Your task to perform on an android device: add a contact in the contacts app Image 0: 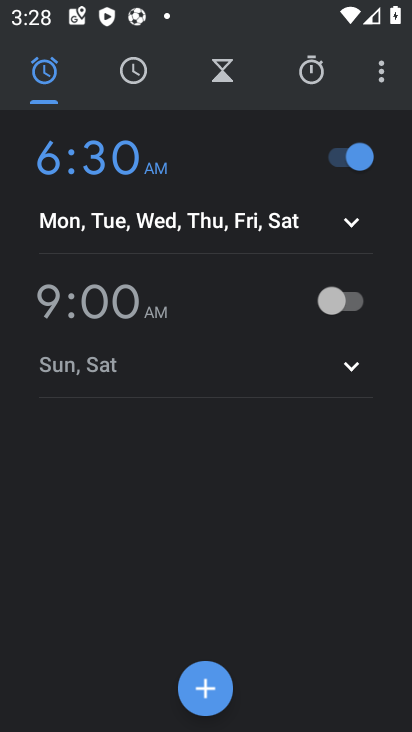
Step 0: press home button
Your task to perform on an android device: add a contact in the contacts app Image 1: 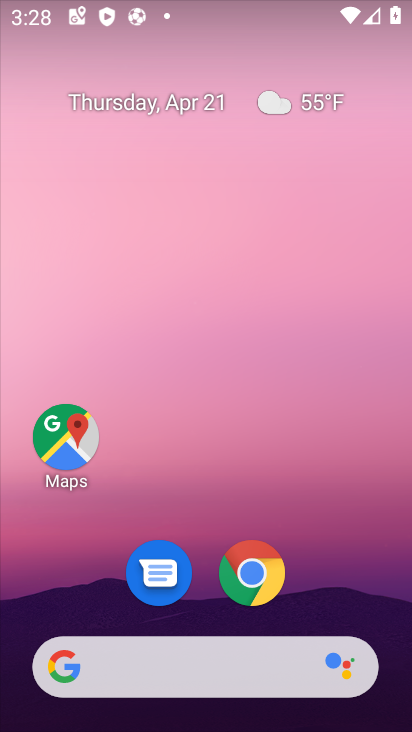
Step 1: drag from (358, 608) to (283, 93)
Your task to perform on an android device: add a contact in the contacts app Image 2: 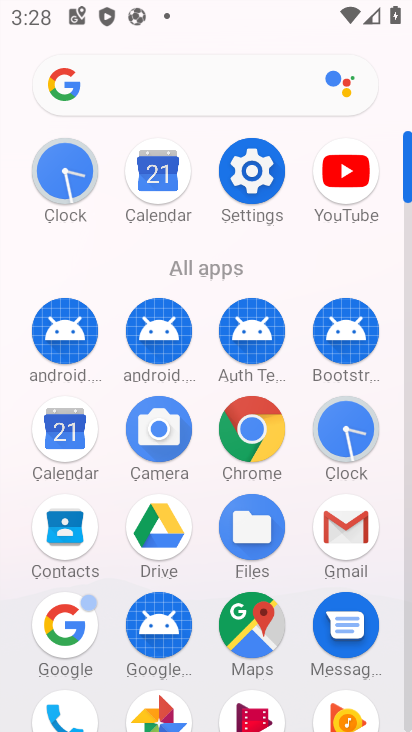
Step 2: click (409, 702)
Your task to perform on an android device: add a contact in the contacts app Image 3: 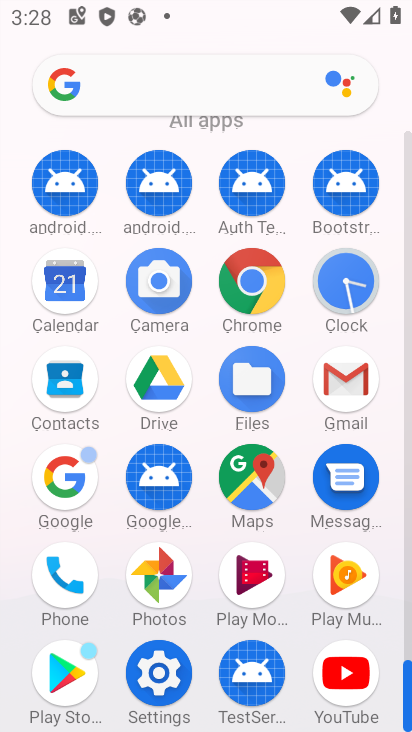
Step 3: click (62, 375)
Your task to perform on an android device: add a contact in the contacts app Image 4: 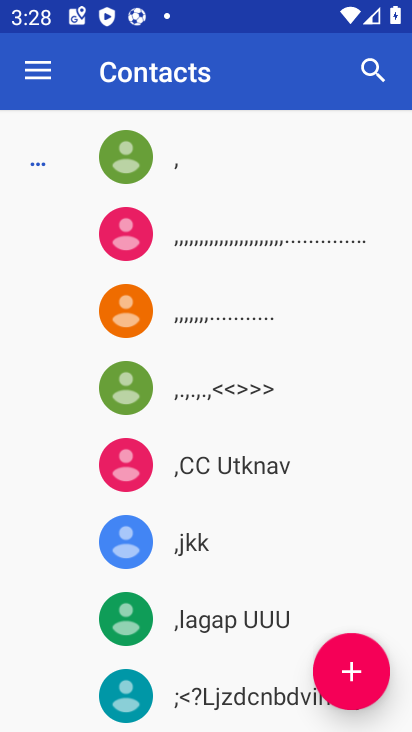
Step 4: click (349, 671)
Your task to perform on an android device: add a contact in the contacts app Image 5: 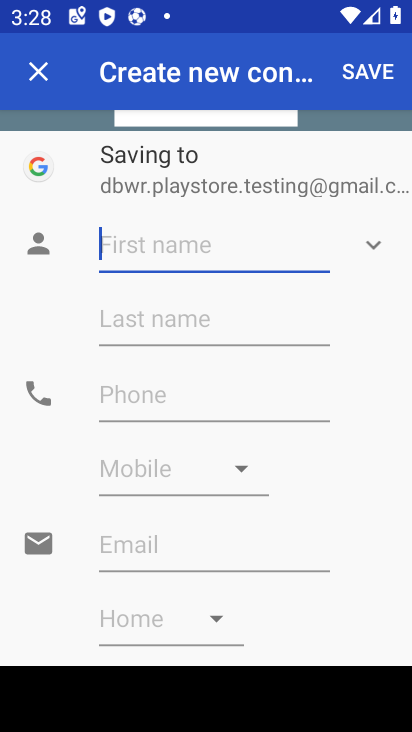
Step 5: type "asdhjjfh"
Your task to perform on an android device: add a contact in the contacts app Image 6: 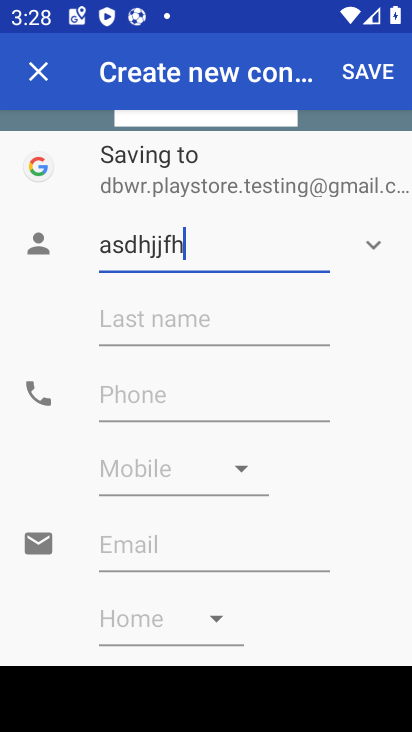
Step 6: click (195, 404)
Your task to perform on an android device: add a contact in the contacts app Image 7: 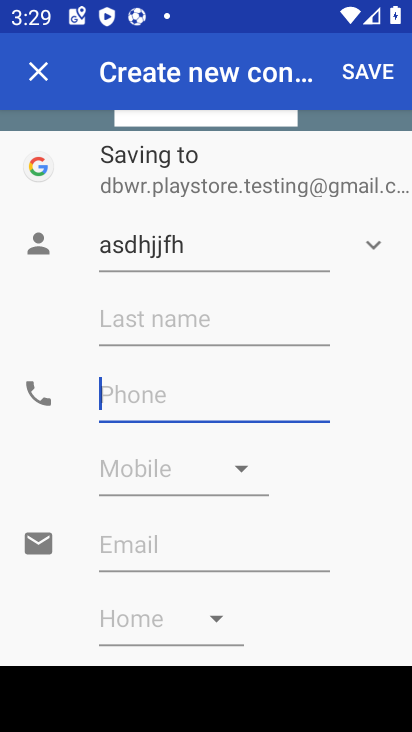
Step 7: type "091256780"
Your task to perform on an android device: add a contact in the contacts app Image 8: 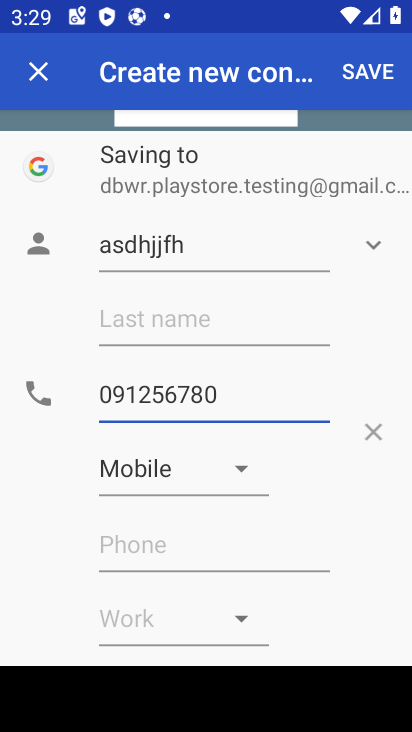
Step 8: click (239, 466)
Your task to perform on an android device: add a contact in the contacts app Image 9: 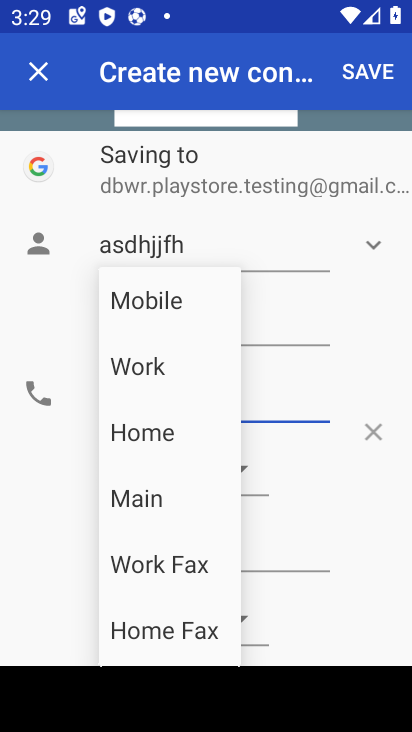
Step 9: click (144, 365)
Your task to perform on an android device: add a contact in the contacts app Image 10: 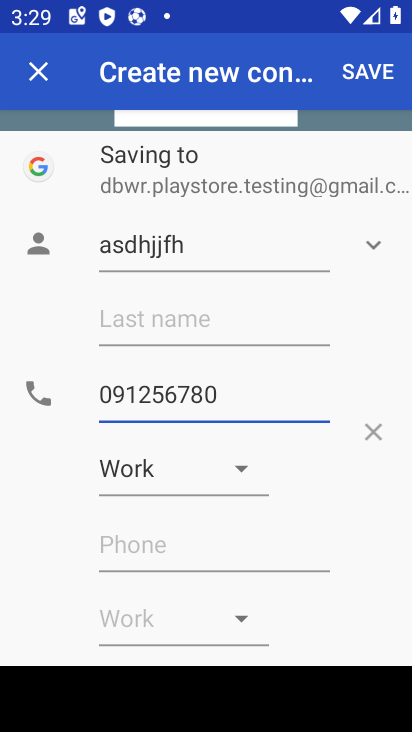
Step 10: click (354, 59)
Your task to perform on an android device: add a contact in the contacts app Image 11: 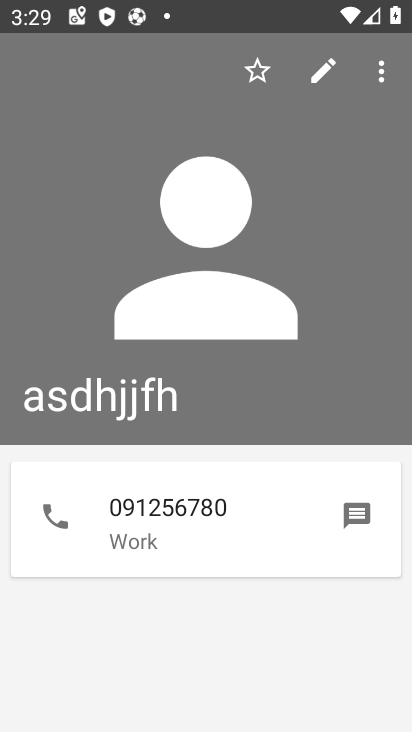
Step 11: task complete